Your task to perform on an android device: search for starred emails in the gmail app Image 0: 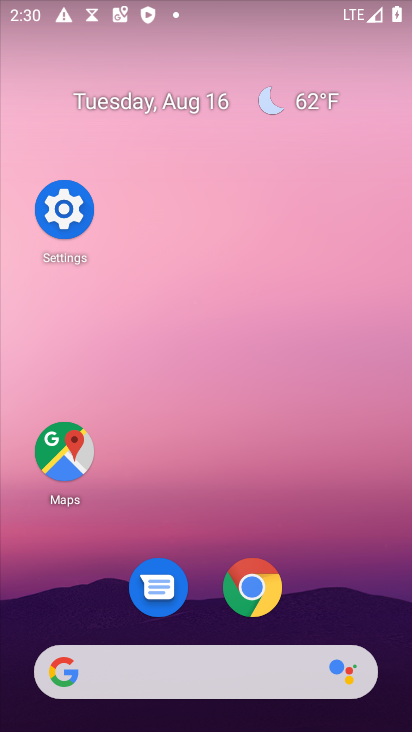
Step 0: drag from (211, 607) to (251, 85)
Your task to perform on an android device: search for starred emails in the gmail app Image 1: 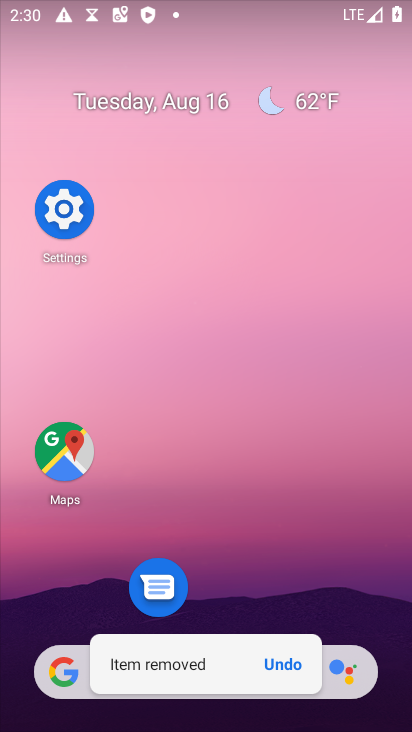
Step 1: drag from (258, 582) to (268, 5)
Your task to perform on an android device: search for starred emails in the gmail app Image 2: 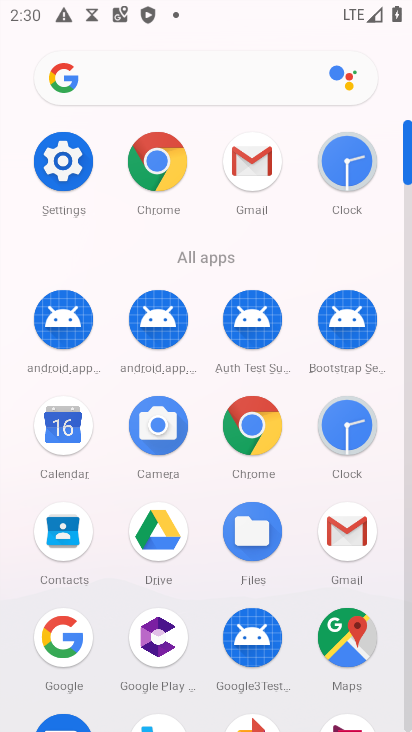
Step 2: click (265, 155)
Your task to perform on an android device: search for starred emails in the gmail app Image 3: 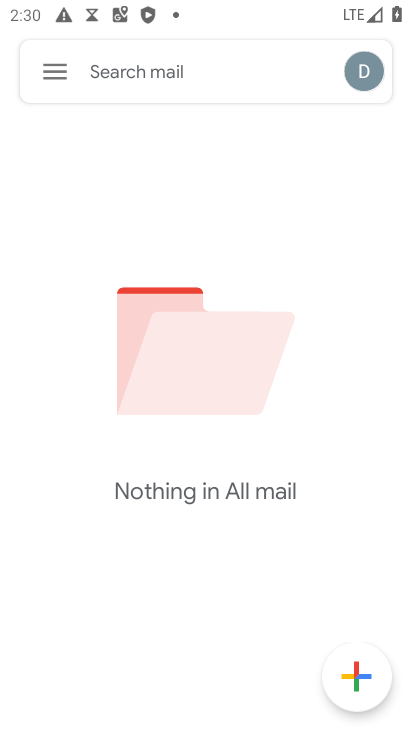
Step 3: click (47, 70)
Your task to perform on an android device: search for starred emails in the gmail app Image 4: 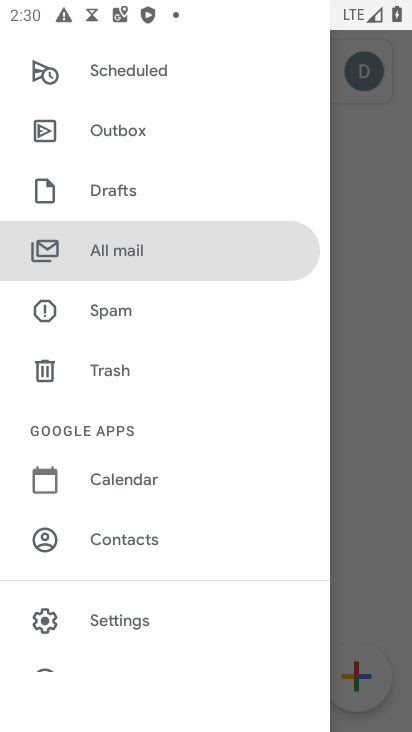
Step 4: drag from (180, 166) to (176, 559)
Your task to perform on an android device: search for starred emails in the gmail app Image 5: 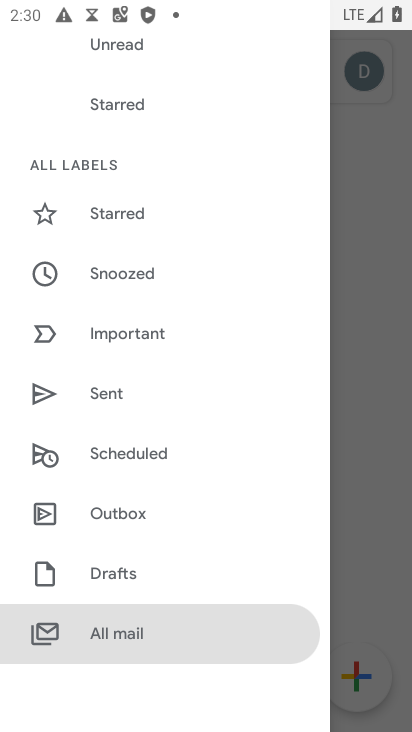
Step 5: click (141, 203)
Your task to perform on an android device: search for starred emails in the gmail app Image 6: 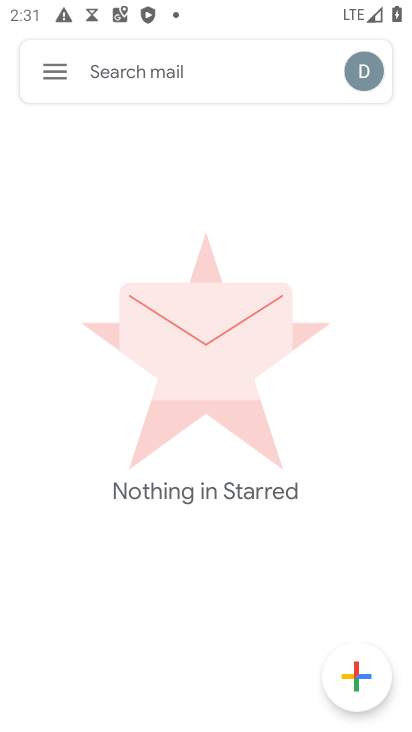
Step 6: task complete